Your task to perform on an android device: toggle data saver in the chrome app Image 0: 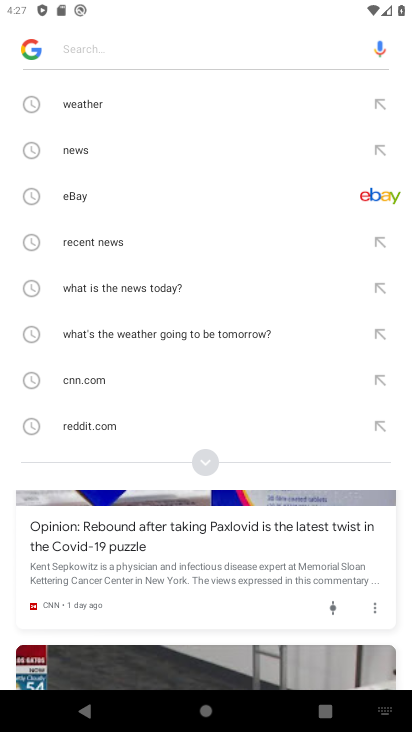
Step 0: task impossible